Your task to perform on an android device: Open calendar and show me the third week of next month Image 0: 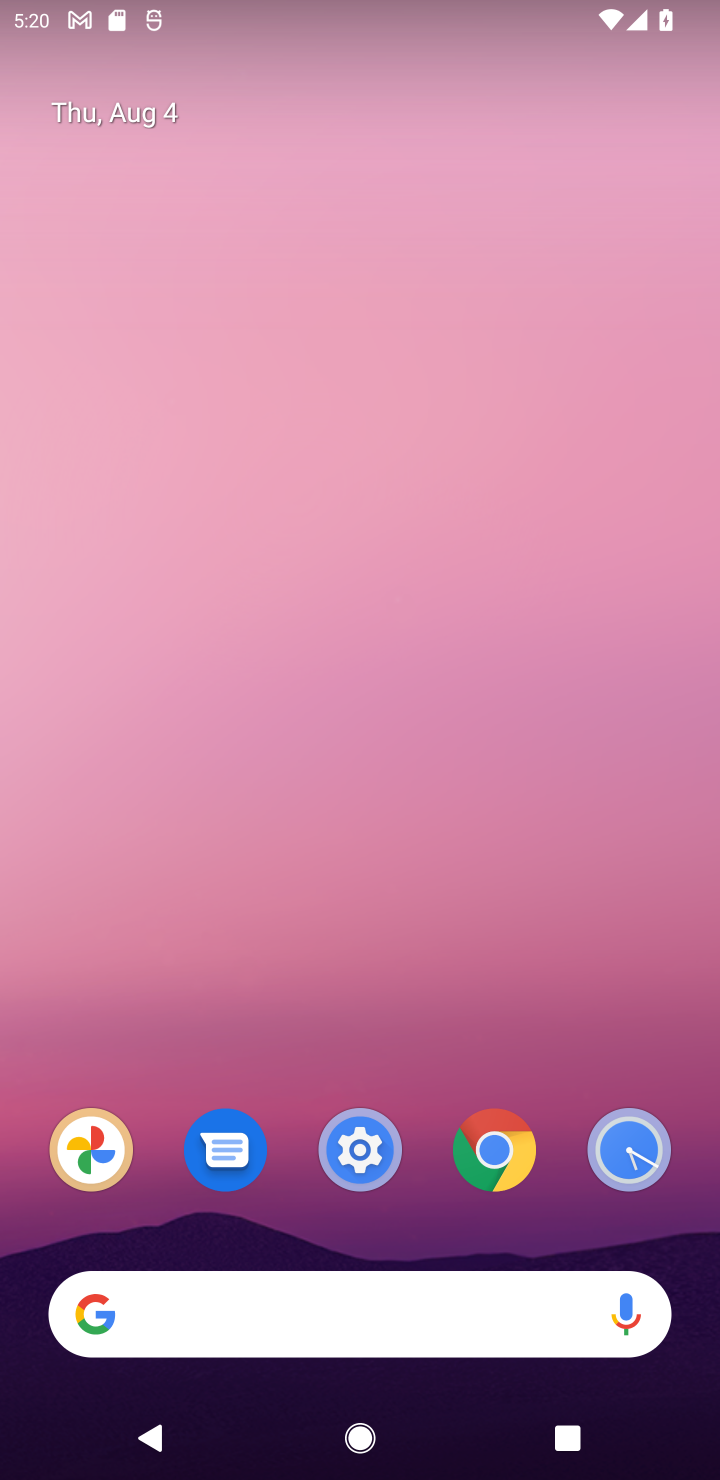
Step 0: drag from (302, 1223) to (506, 6)
Your task to perform on an android device: Open calendar and show me the third week of next month Image 1: 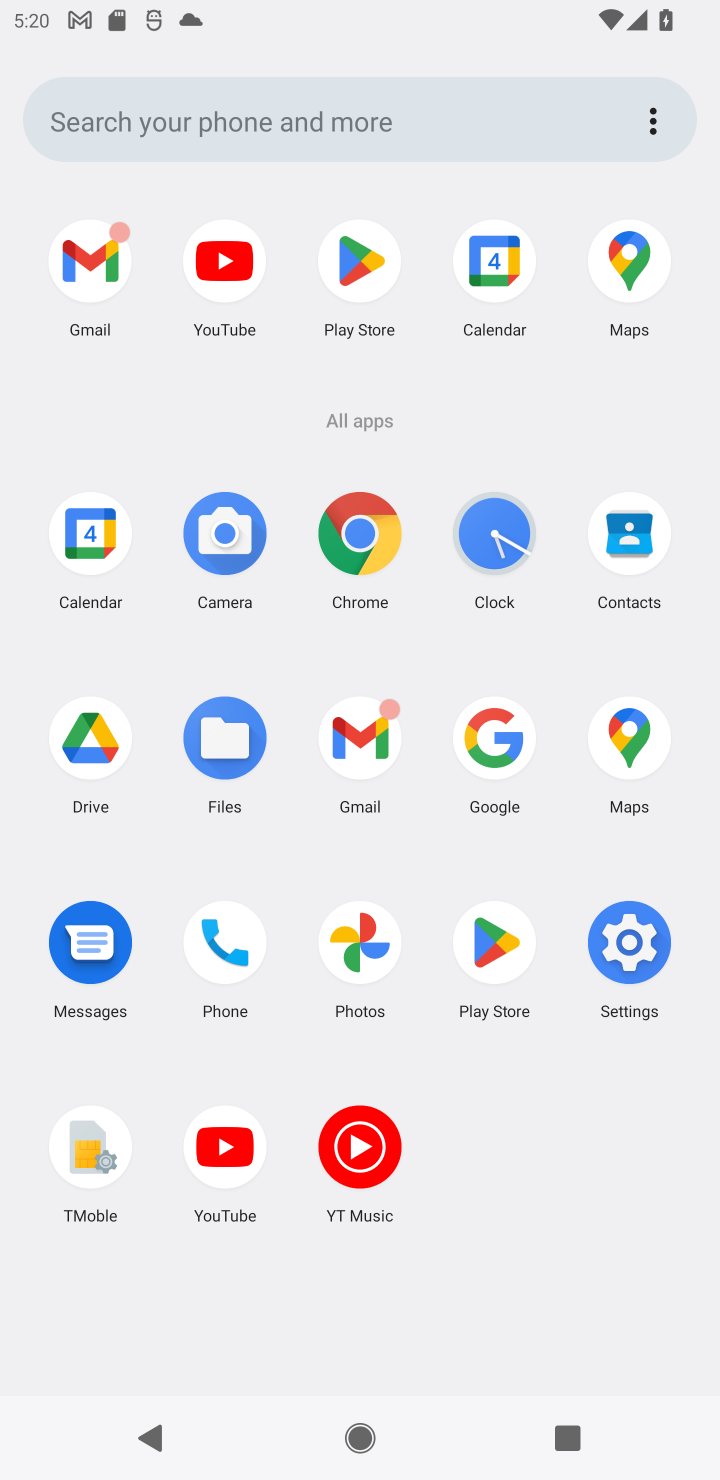
Step 1: click (64, 523)
Your task to perform on an android device: Open calendar and show me the third week of next month Image 2: 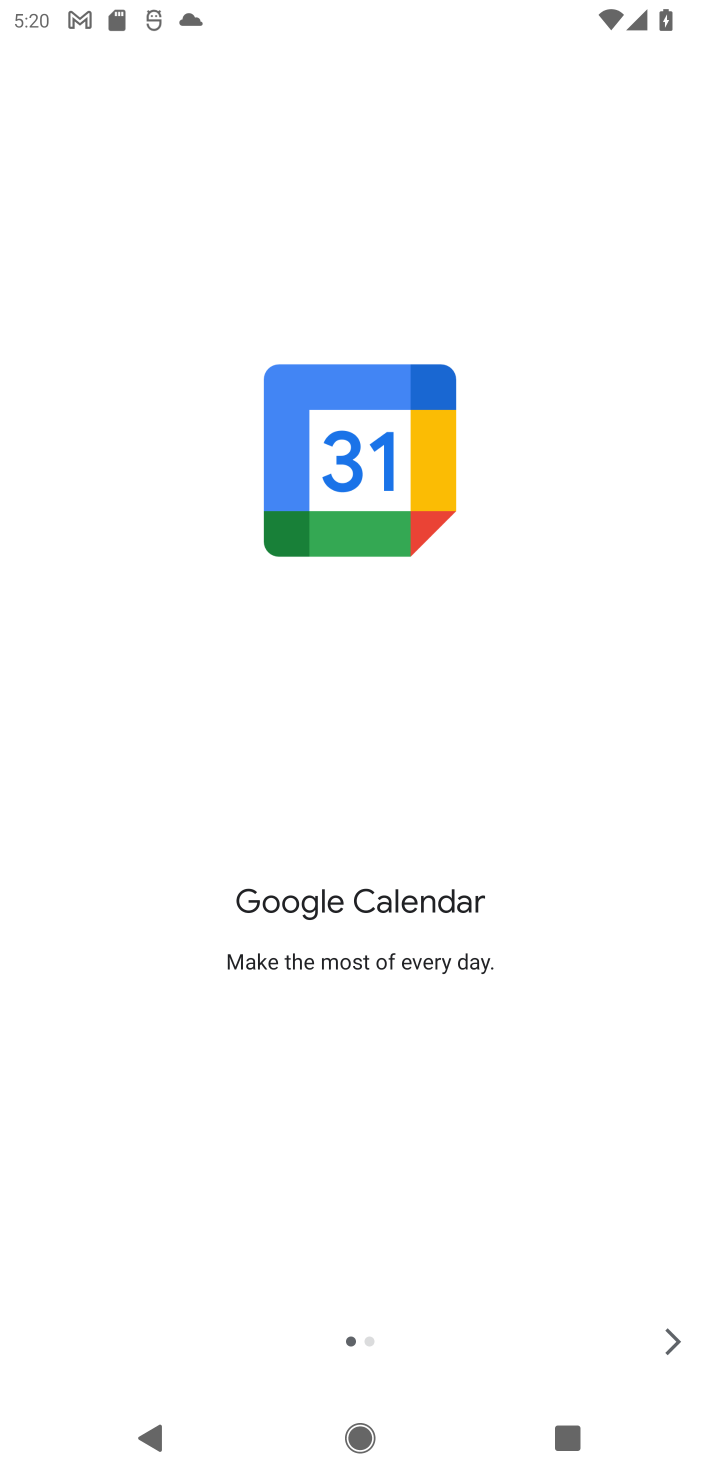
Step 2: click (663, 1329)
Your task to perform on an android device: Open calendar and show me the third week of next month Image 3: 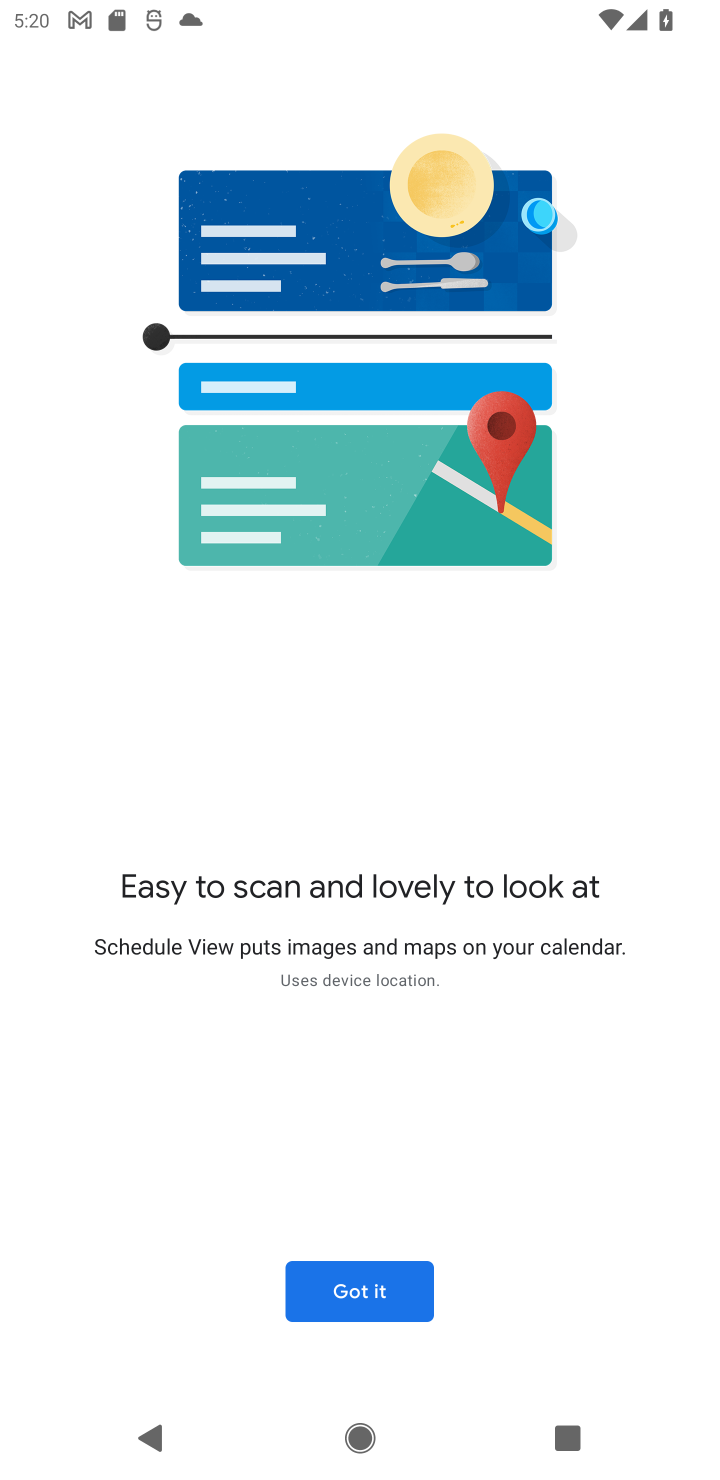
Step 3: click (400, 1289)
Your task to perform on an android device: Open calendar and show me the third week of next month Image 4: 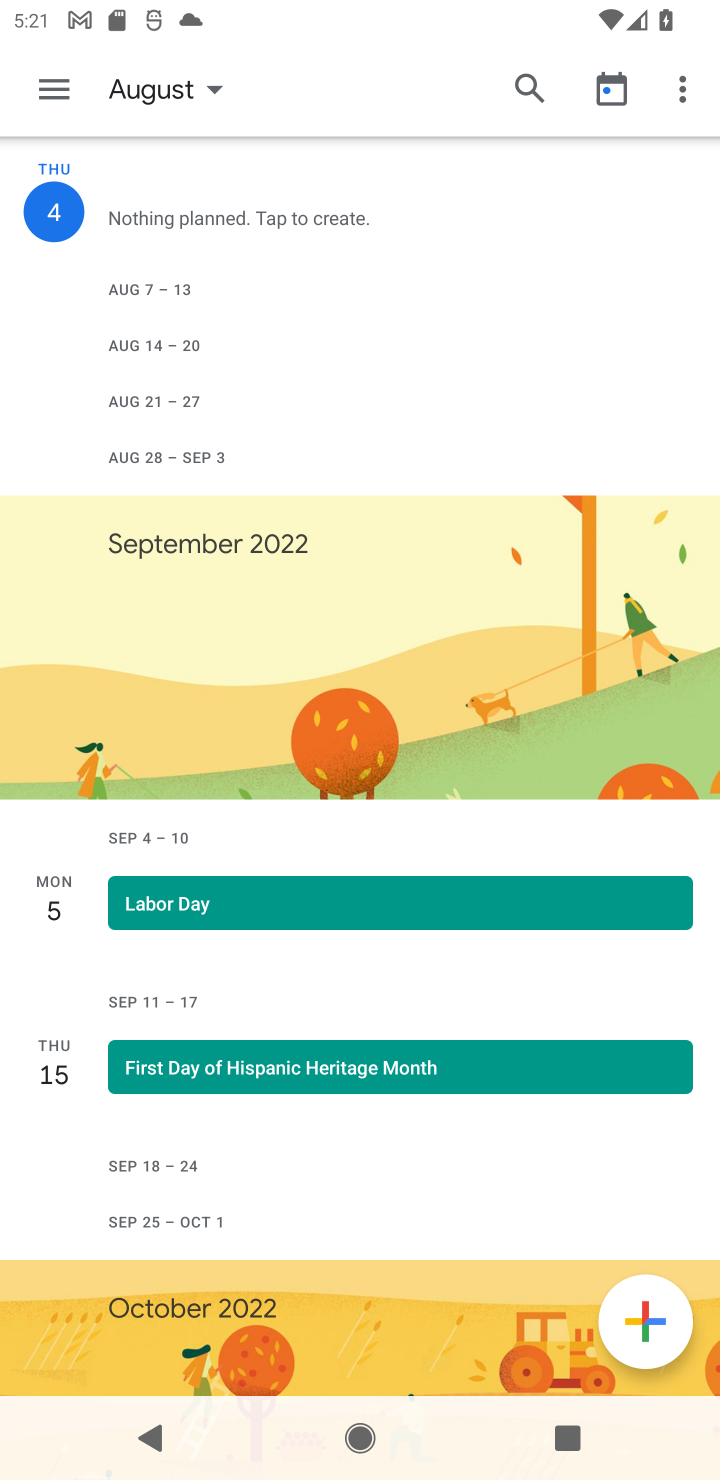
Step 4: click (40, 92)
Your task to perform on an android device: Open calendar and show me the third week of next month Image 5: 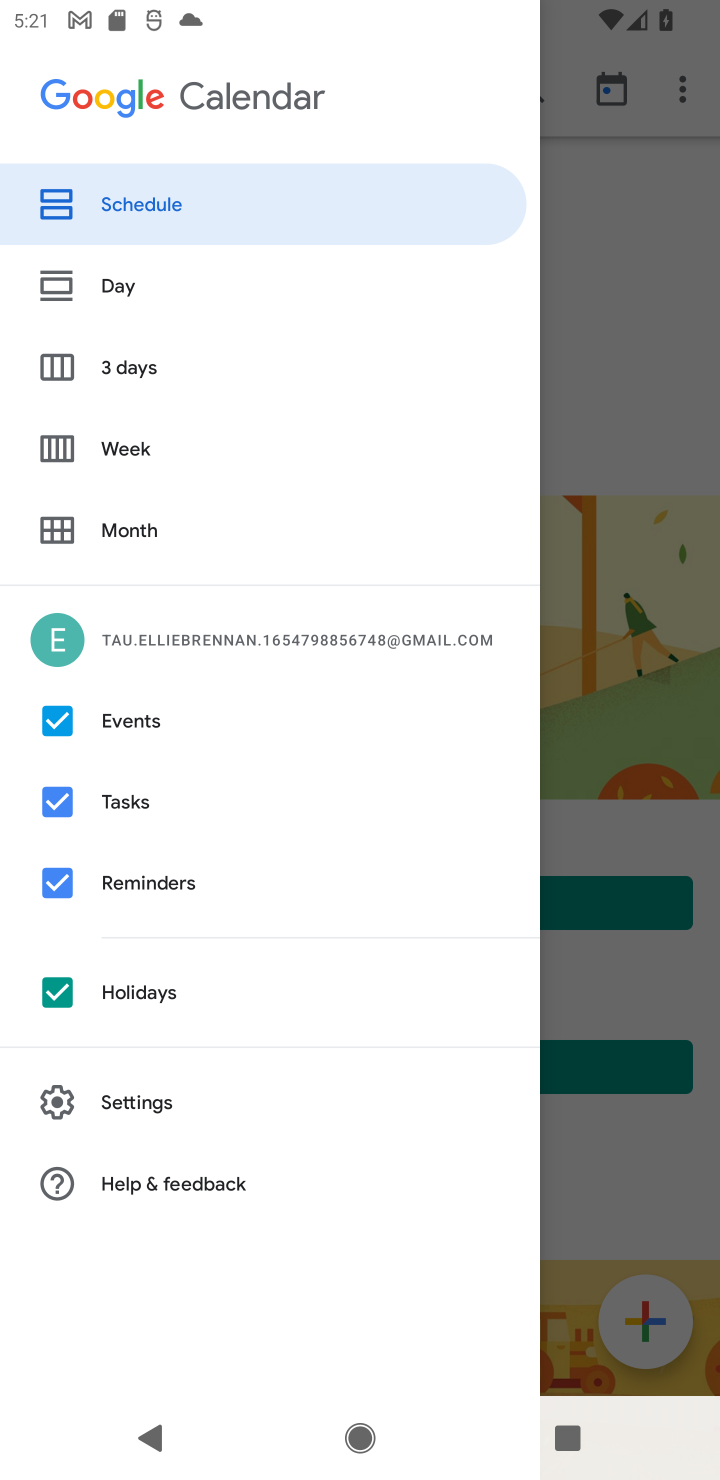
Step 5: click (99, 819)
Your task to perform on an android device: Open calendar and show me the third week of next month Image 6: 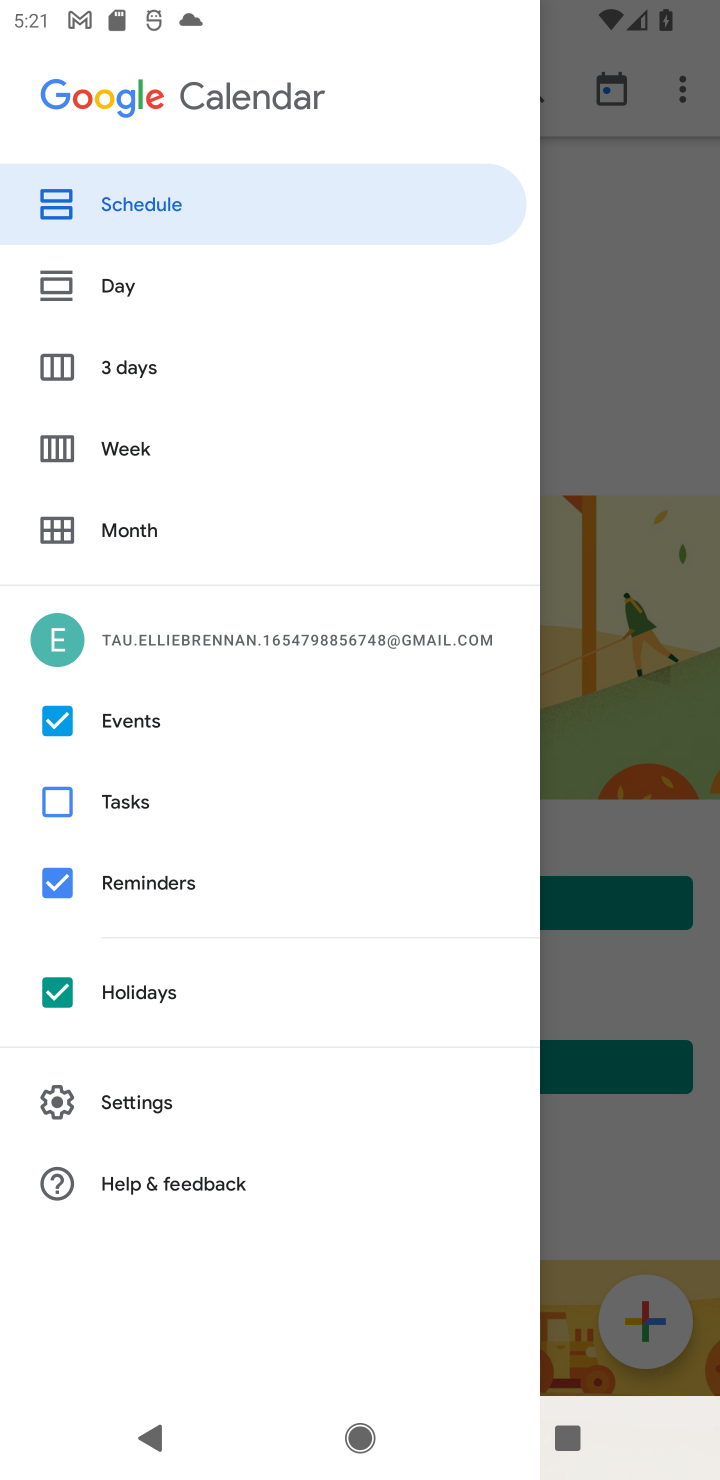
Step 6: click (107, 888)
Your task to perform on an android device: Open calendar and show me the third week of next month Image 7: 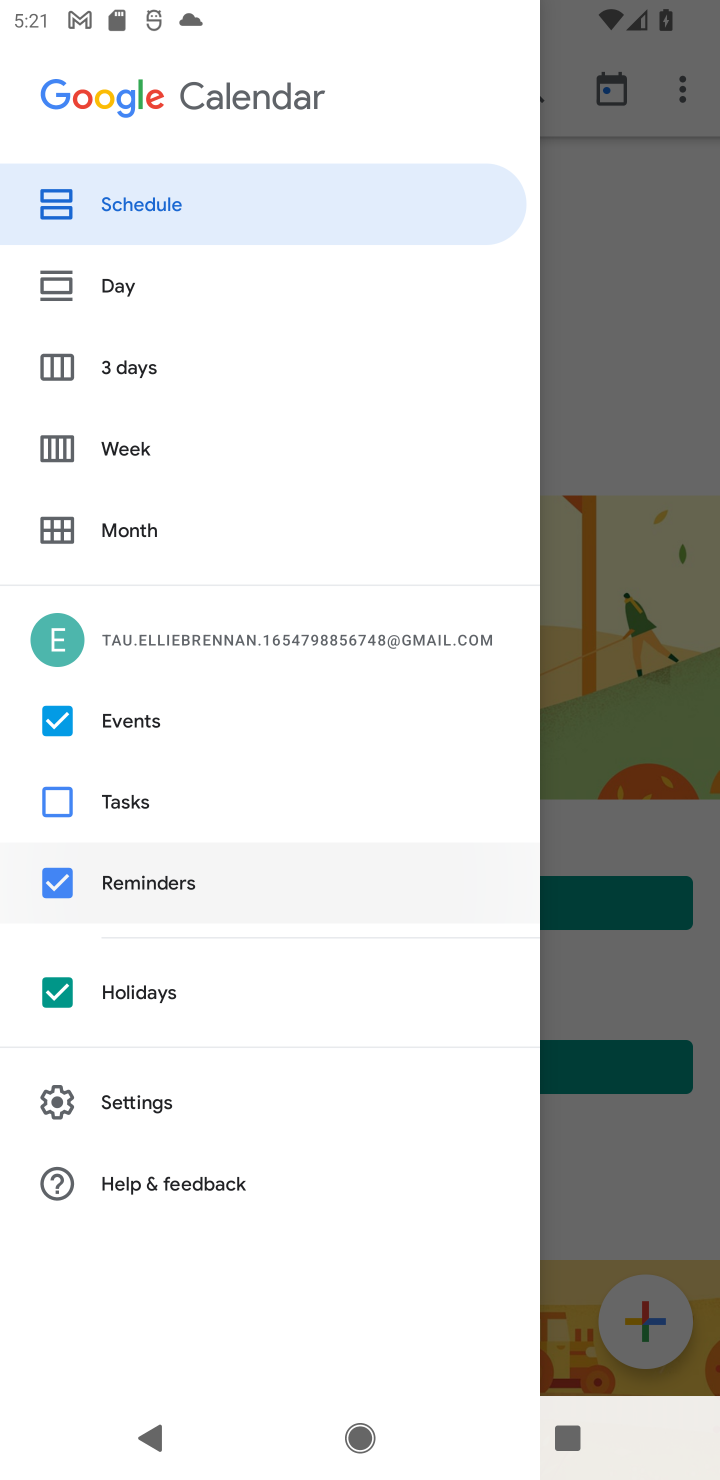
Step 7: click (97, 1011)
Your task to perform on an android device: Open calendar and show me the third week of next month Image 8: 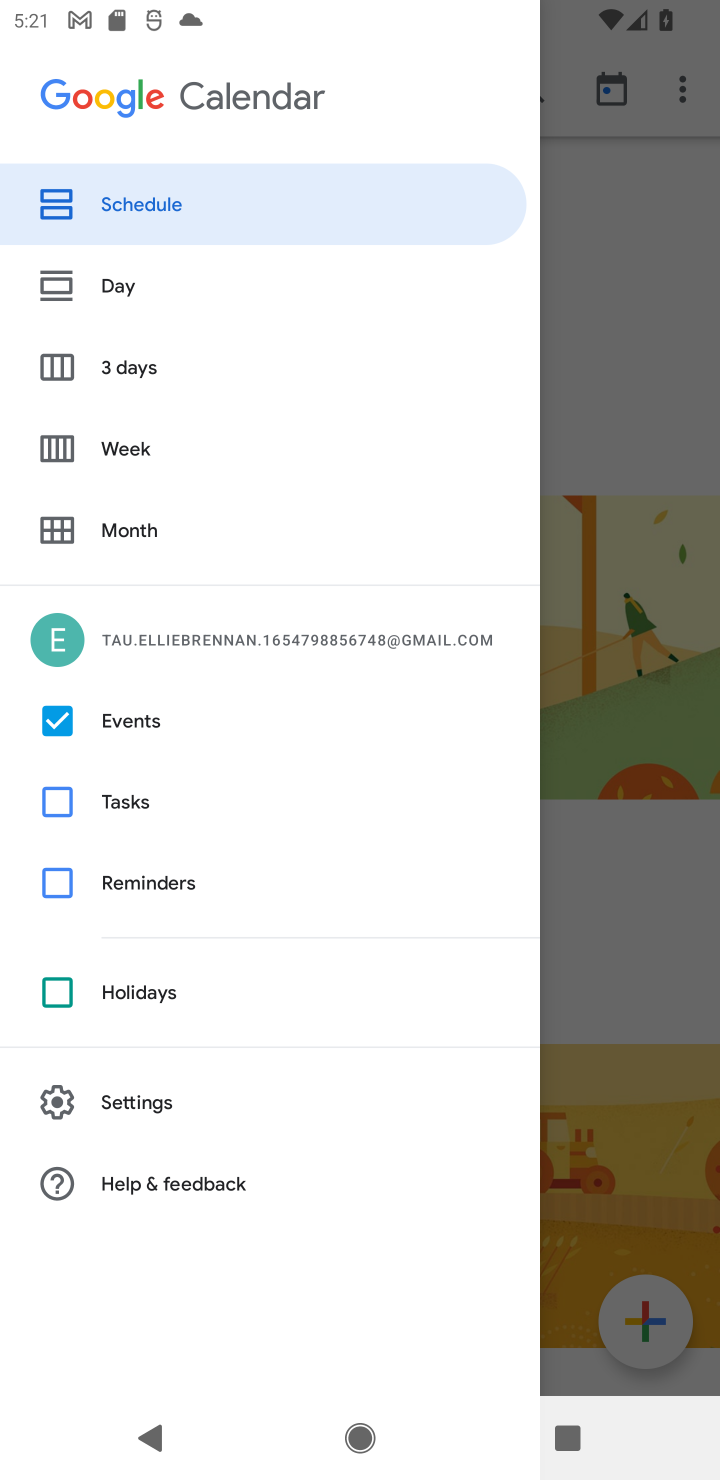
Step 8: click (121, 455)
Your task to perform on an android device: Open calendar and show me the third week of next month Image 9: 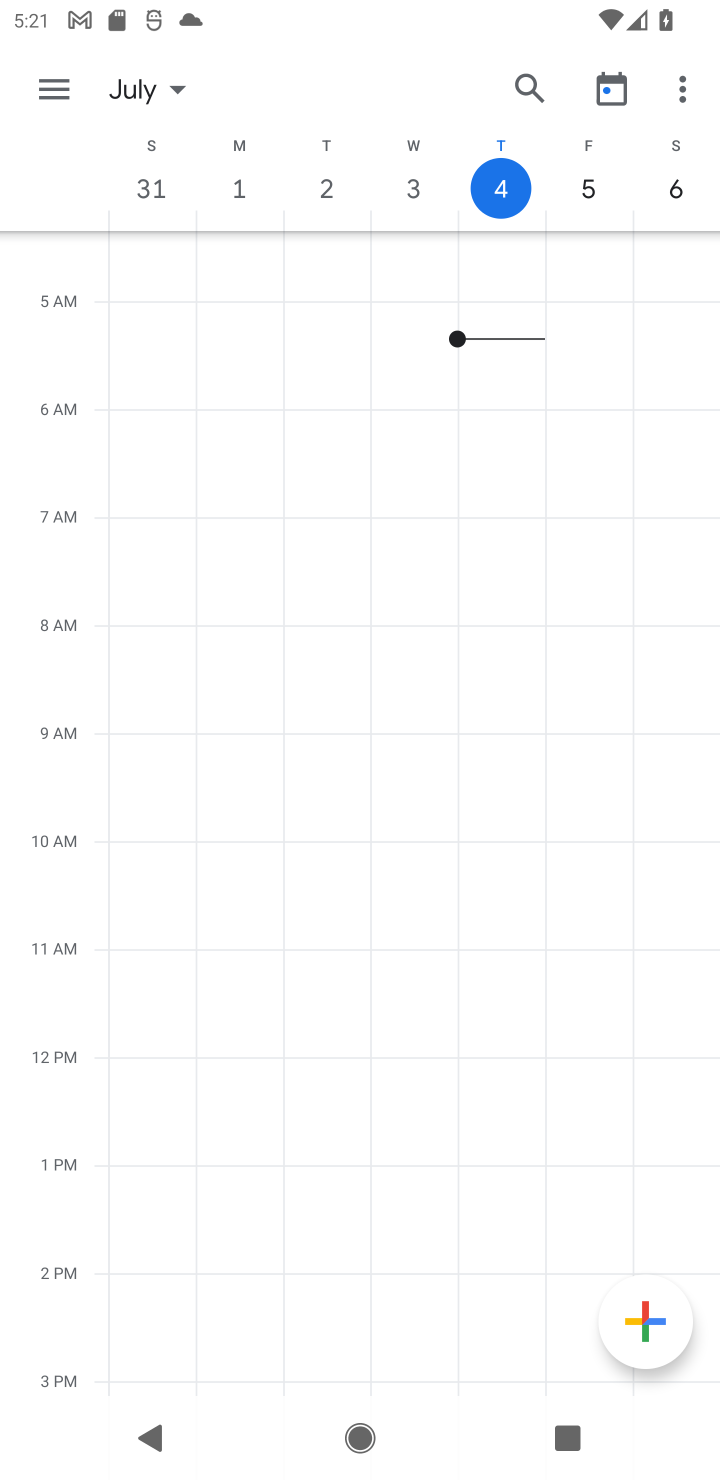
Step 9: task complete